Your task to perform on an android device: turn off sleep mode Image 0: 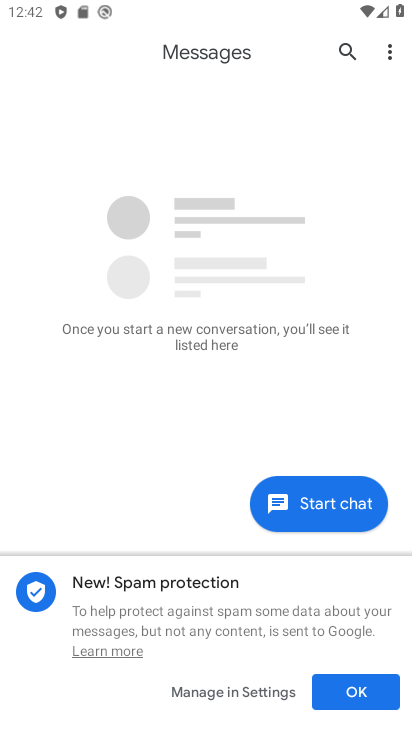
Step 0: press home button
Your task to perform on an android device: turn off sleep mode Image 1: 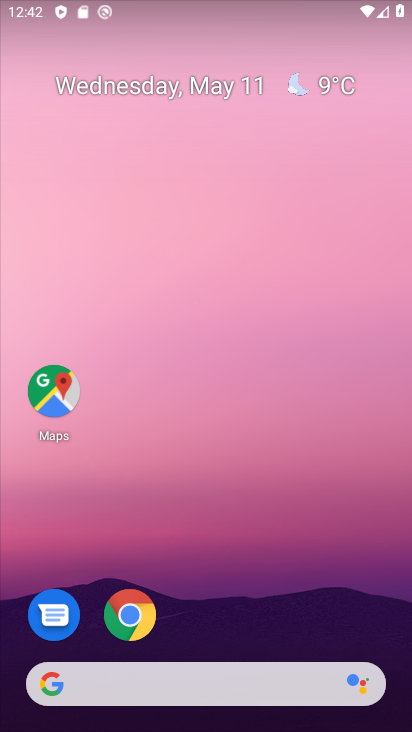
Step 1: drag from (207, 609) to (301, 177)
Your task to perform on an android device: turn off sleep mode Image 2: 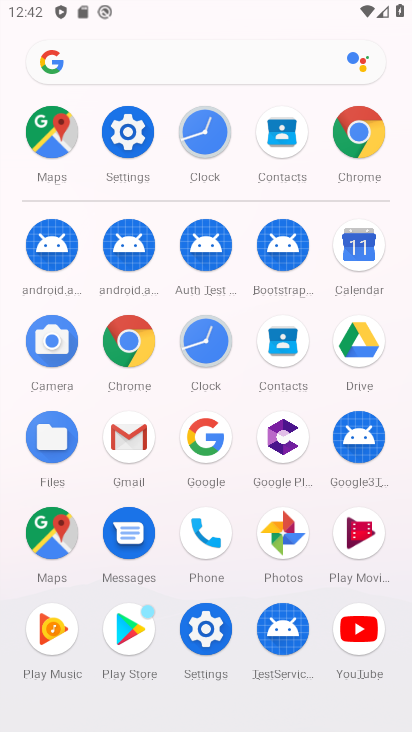
Step 2: click (115, 136)
Your task to perform on an android device: turn off sleep mode Image 3: 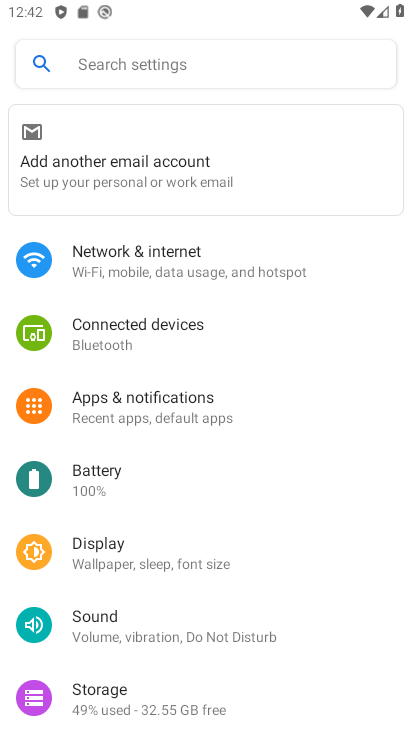
Step 3: click (144, 553)
Your task to perform on an android device: turn off sleep mode Image 4: 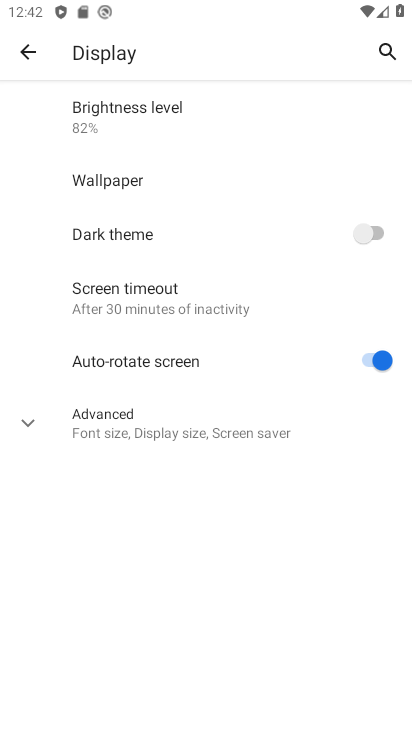
Step 4: click (148, 310)
Your task to perform on an android device: turn off sleep mode Image 5: 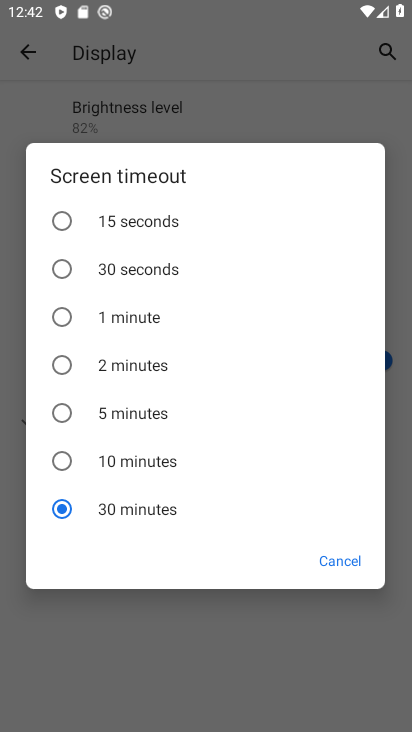
Step 5: drag from (152, 221) to (150, 431)
Your task to perform on an android device: turn off sleep mode Image 6: 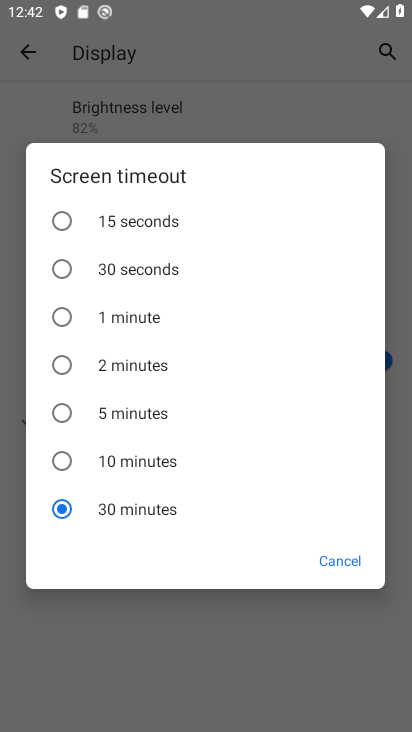
Step 6: click (151, 233)
Your task to perform on an android device: turn off sleep mode Image 7: 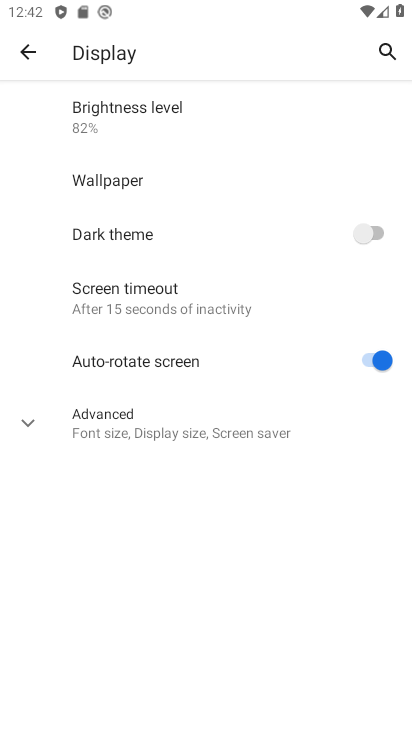
Step 7: task complete